Your task to perform on an android device: manage bookmarks in the chrome app Image 0: 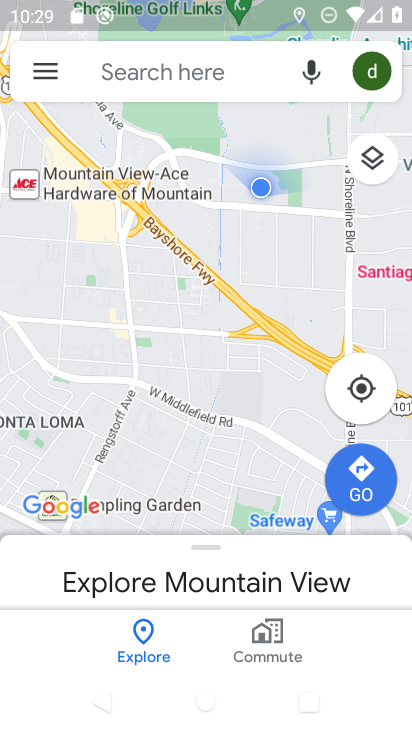
Step 0: press home button
Your task to perform on an android device: manage bookmarks in the chrome app Image 1: 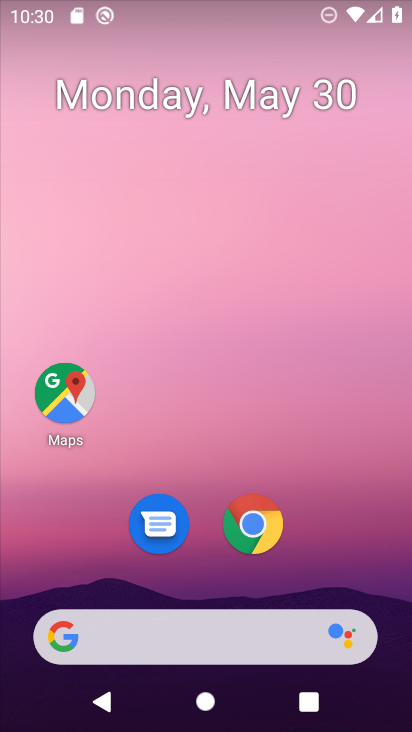
Step 1: click (262, 529)
Your task to perform on an android device: manage bookmarks in the chrome app Image 2: 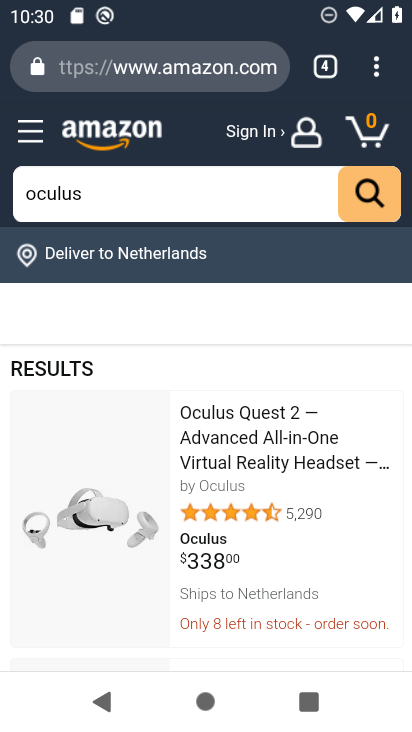
Step 2: click (371, 79)
Your task to perform on an android device: manage bookmarks in the chrome app Image 3: 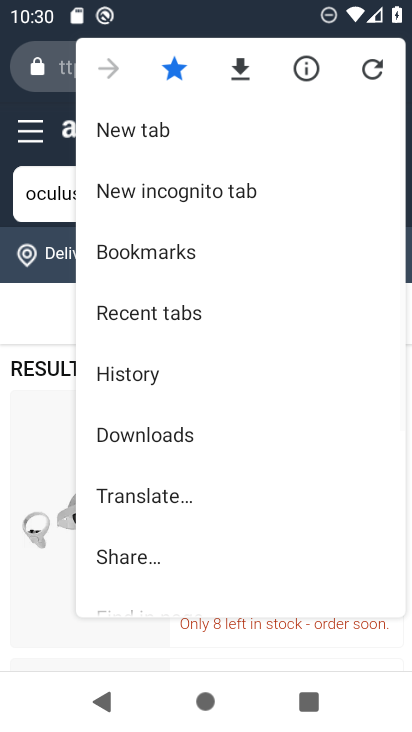
Step 3: click (195, 255)
Your task to perform on an android device: manage bookmarks in the chrome app Image 4: 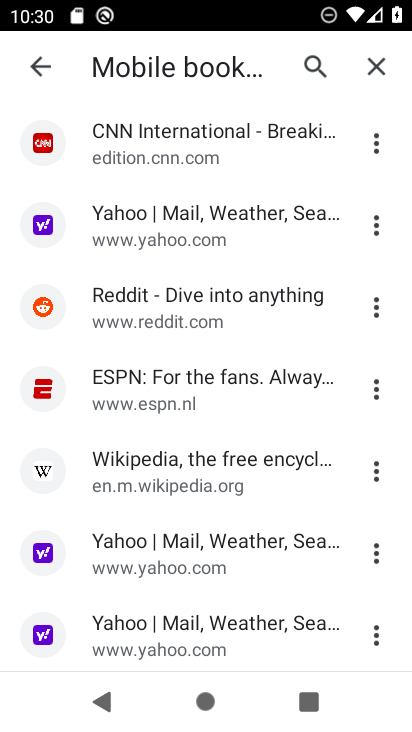
Step 4: click (369, 222)
Your task to perform on an android device: manage bookmarks in the chrome app Image 5: 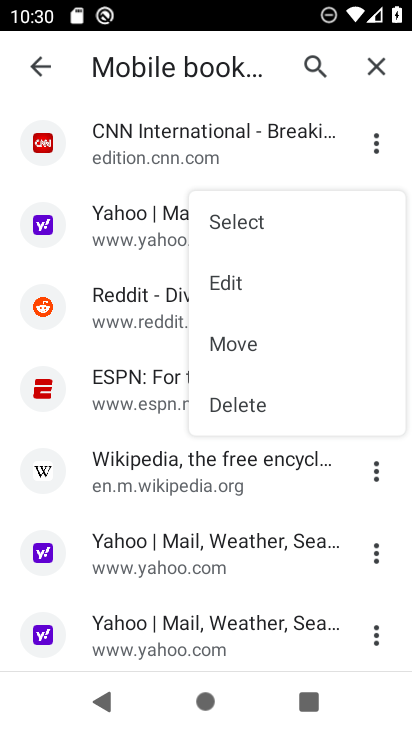
Step 5: click (294, 275)
Your task to perform on an android device: manage bookmarks in the chrome app Image 6: 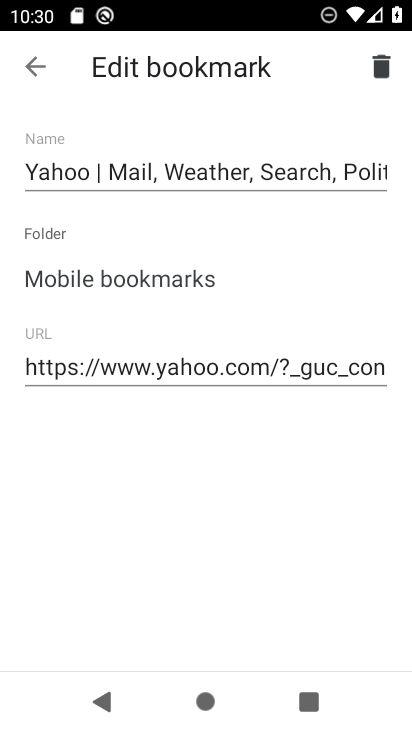
Step 6: click (31, 48)
Your task to perform on an android device: manage bookmarks in the chrome app Image 7: 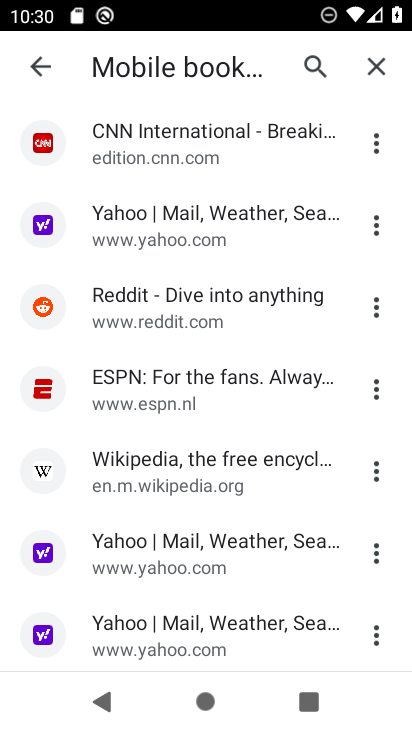
Step 7: task complete